Your task to perform on an android device: open app "Mercado Libre" (install if not already installed), go to login, and select forgot password Image 0: 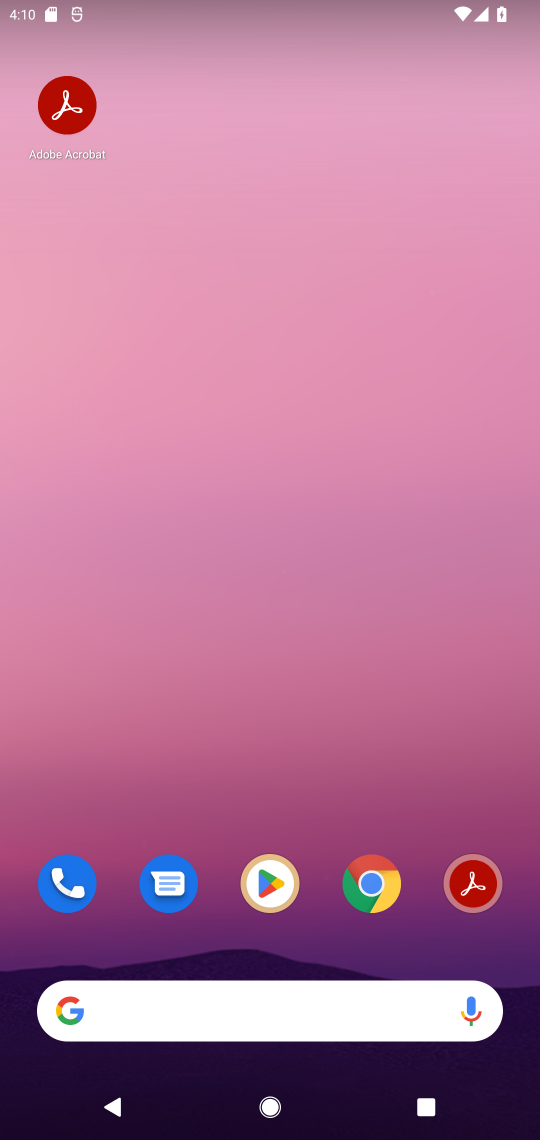
Step 0: drag from (287, 927) to (281, 152)
Your task to perform on an android device: open app "Mercado Libre" (install if not already installed), go to login, and select forgot password Image 1: 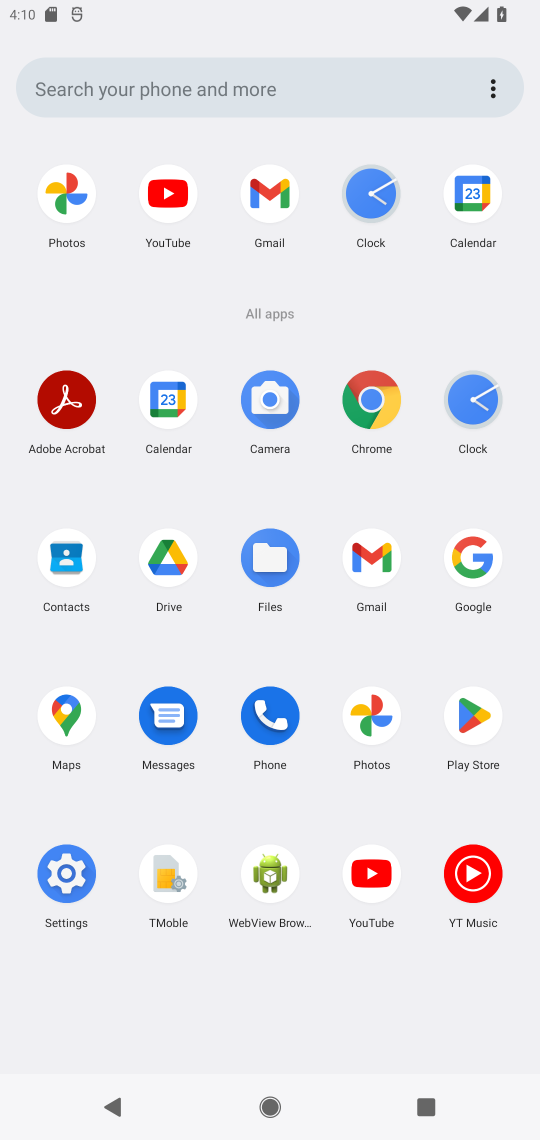
Step 1: click (478, 724)
Your task to perform on an android device: open app "Mercado Libre" (install if not already installed), go to login, and select forgot password Image 2: 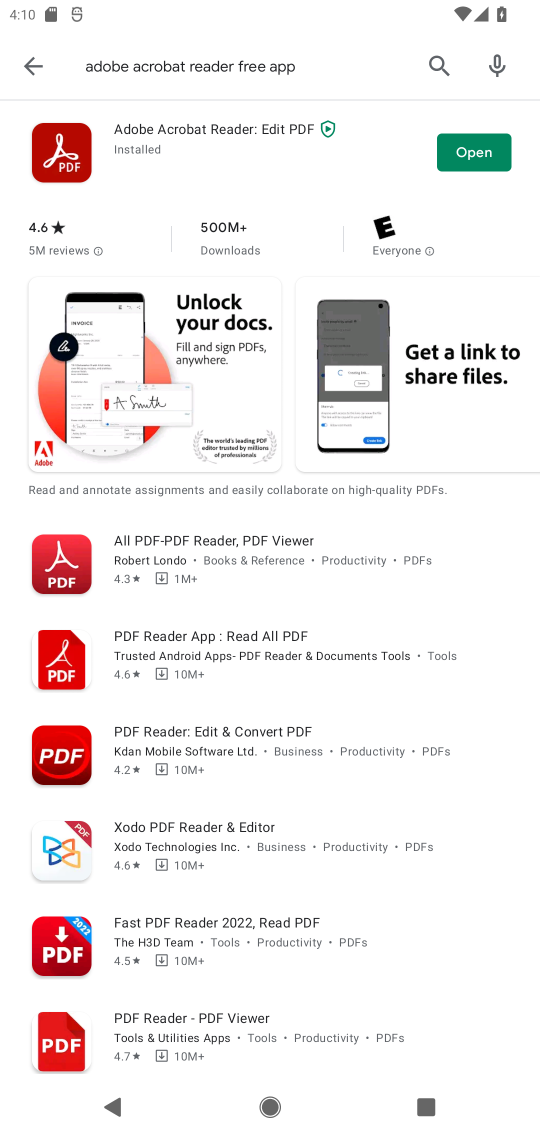
Step 2: click (440, 58)
Your task to perform on an android device: open app "Mercado Libre" (install if not already installed), go to login, and select forgot password Image 3: 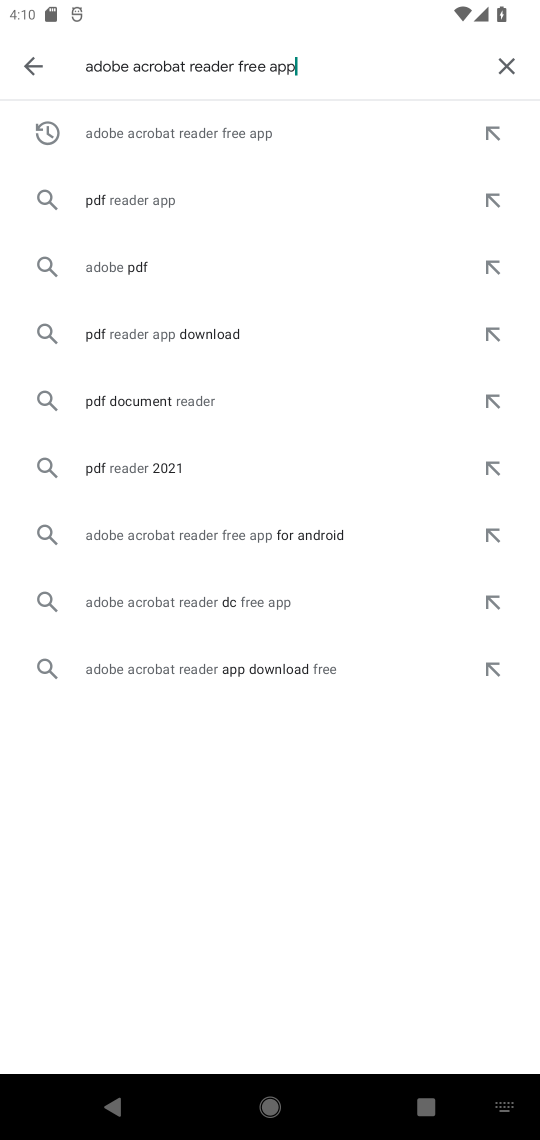
Step 3: click (503, 54)
Your task to perform on an android device: open app "Mercado Libre" (install if not already installed), go to login, and select forgot password Image 4: 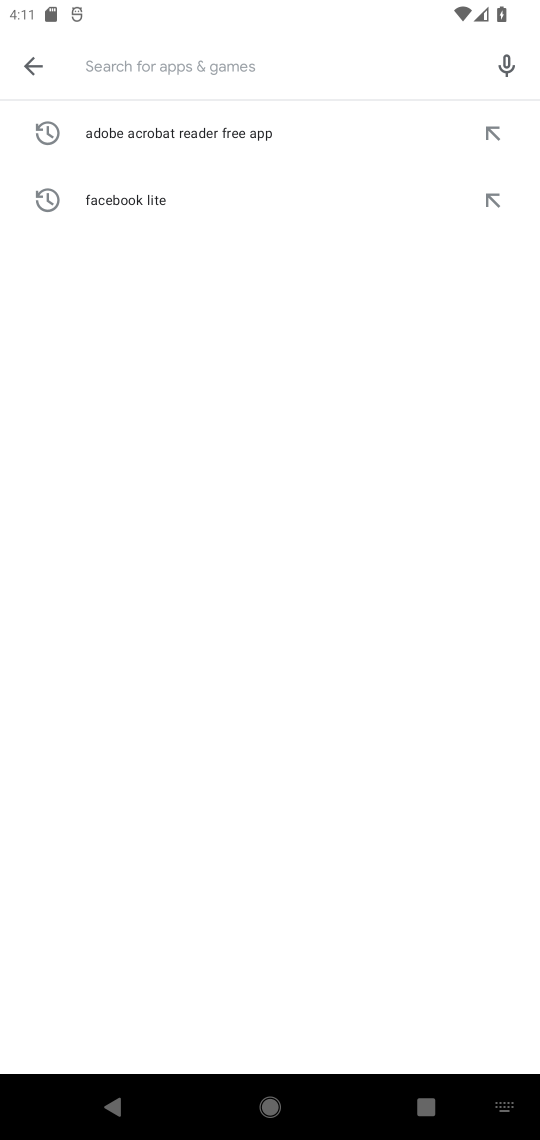
Step 4: type "Mercado Libre"
Your task to perform on an android device: open app "Mercado Libre" (install if not already installed), go to login, and select forgot password Image 5: 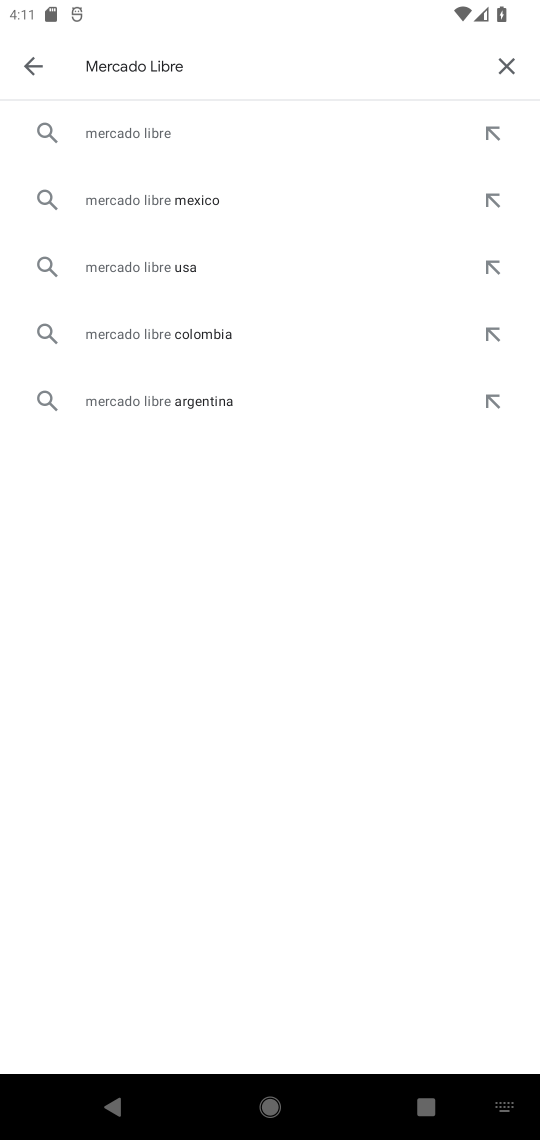
Step 5: click (130, 139)
Your task to perform on an android device: open app "Mercado Libre" (install if not already installed), go to login, and select forgot password Image 6: 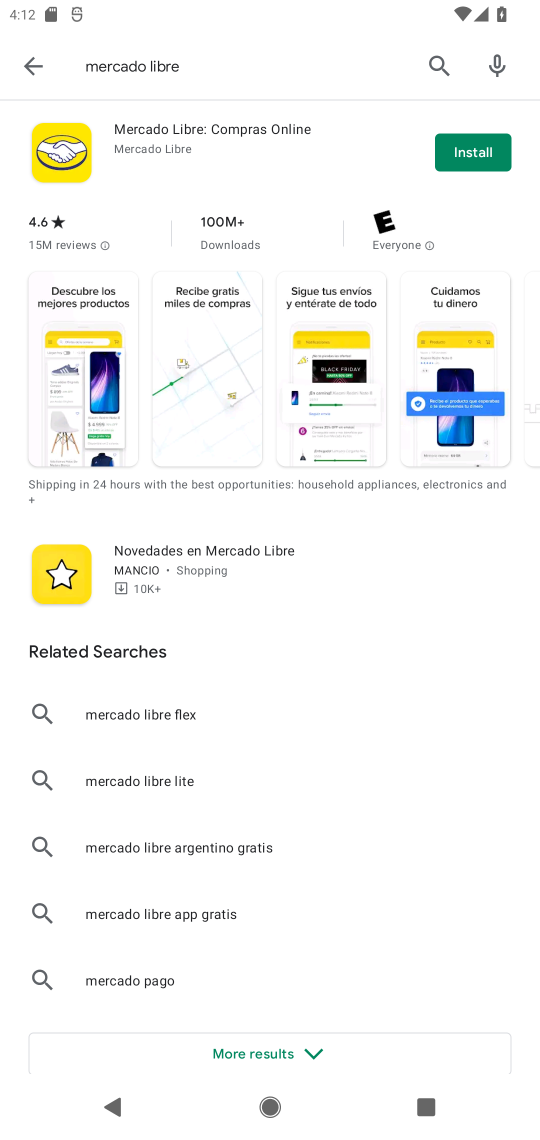
Step 6: click (472, 143)
Your task to perform on an android device: open app "Mercado Libre" (install if not already installed), go to login, and select forgot password Image 7: 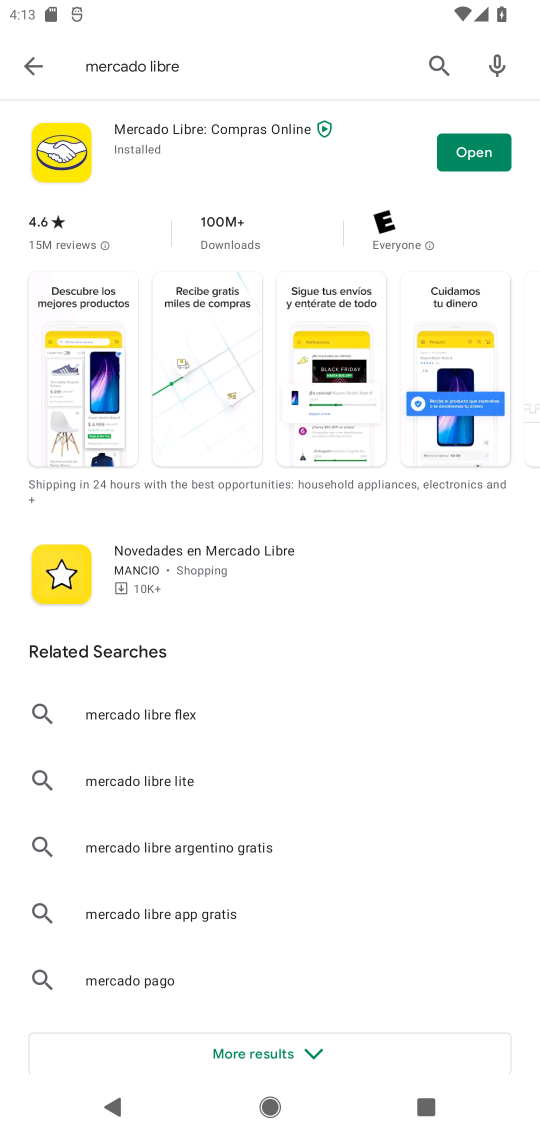
Step 7: click (469, 146)
Your task to perform on an android device: open app "Mercado Libre" (install if not already installed), go to login, and select forgot password Image 8: 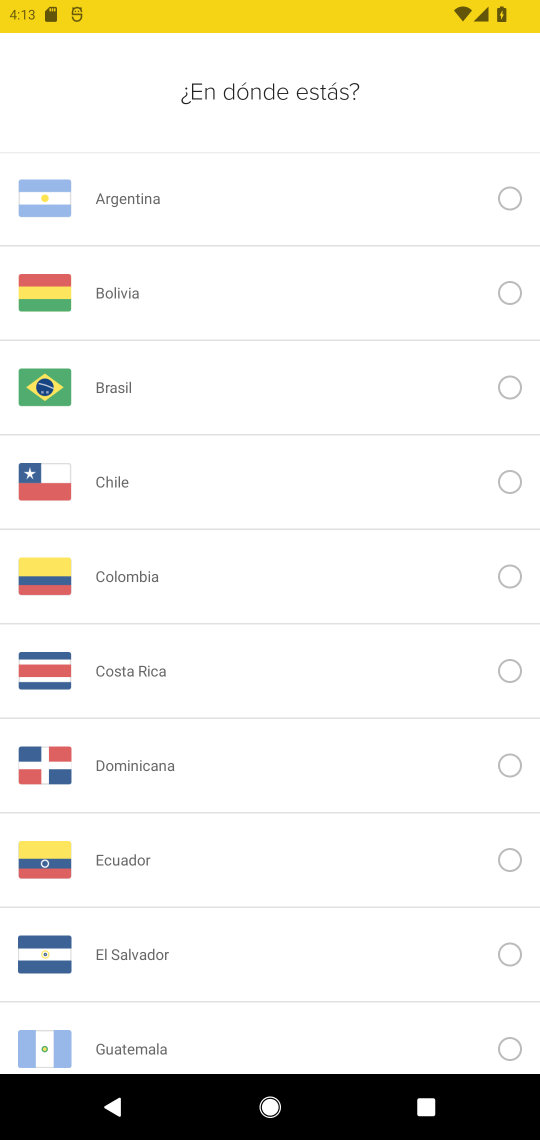
Step 8: task complete